Your task to perform on an android device: Search for the best movies of 2019  Image 0: 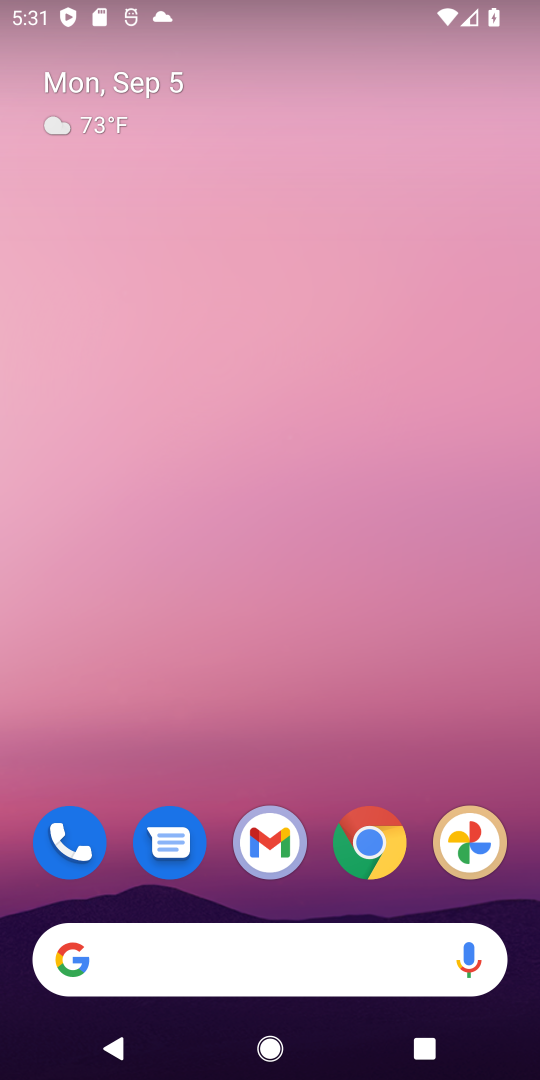
Step 0: click (372, 842)
Your task to perform on an android device: Search for the best movies of 2019  Image 1: 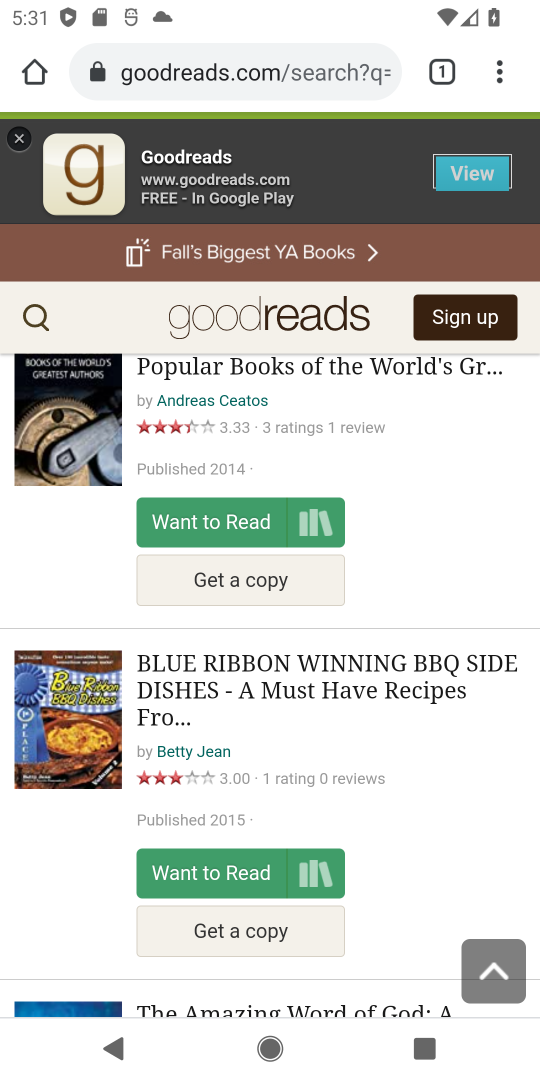
Step 1: click (347, 78)
Your task to perform on an android device: Search for the best movies of 2019  Image 2: 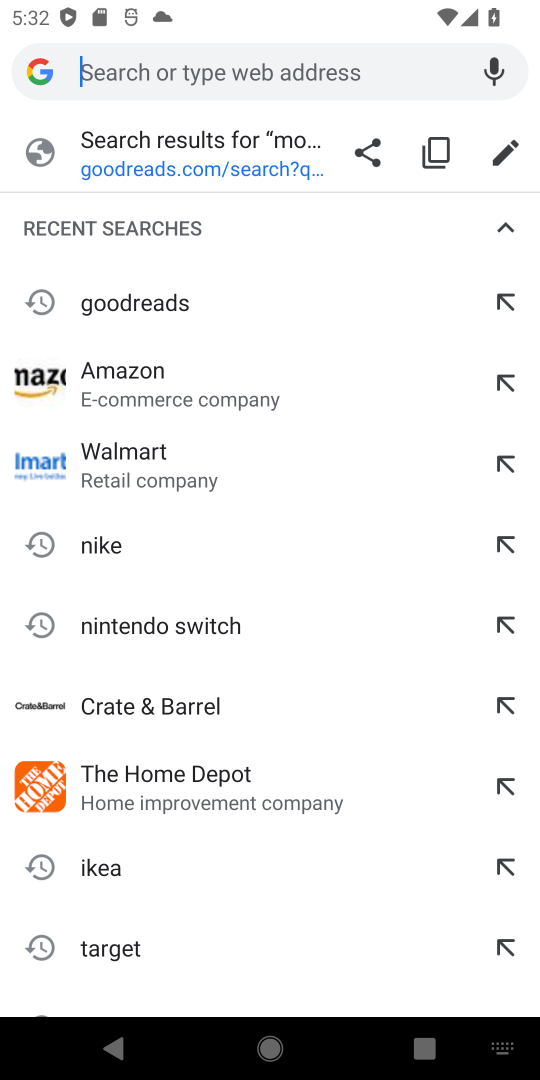
Step 2: click (246, 49)
Your task to perform on an android device: Search for the best movies of 2019  Image 3: 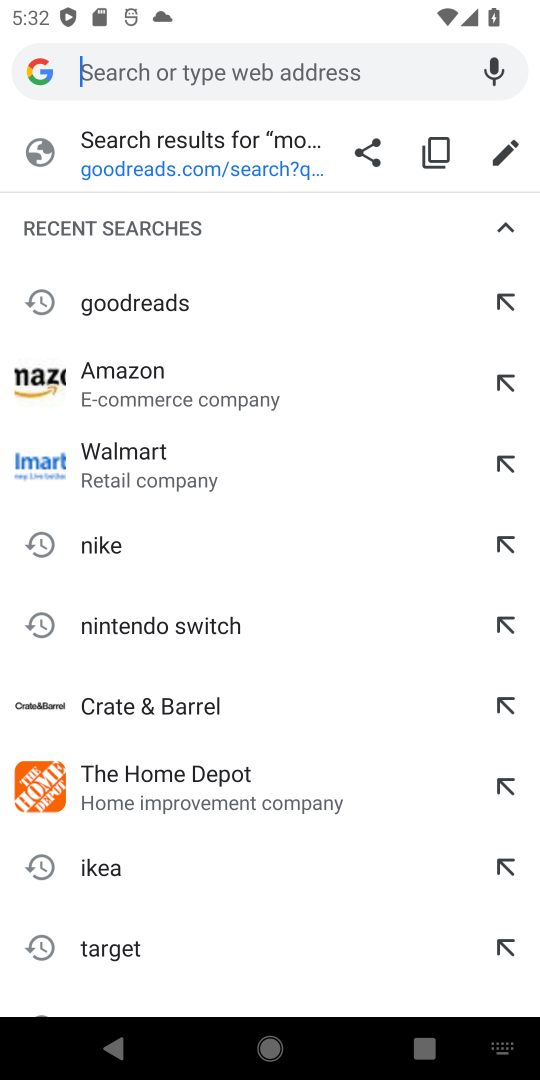
Step 3: type "best movies of 2019"
Your task to perform on an android device: Search for the best movies of 2019  Image 4: 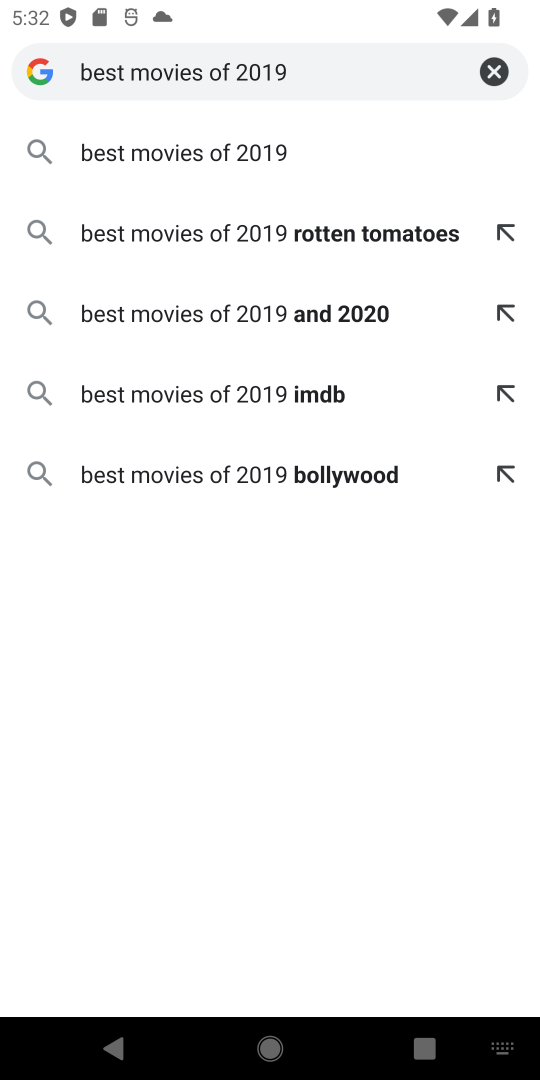
Step 4: click (168, 148)
Your task to perform on an android device: Search for the best movies of 2019  Image 5: 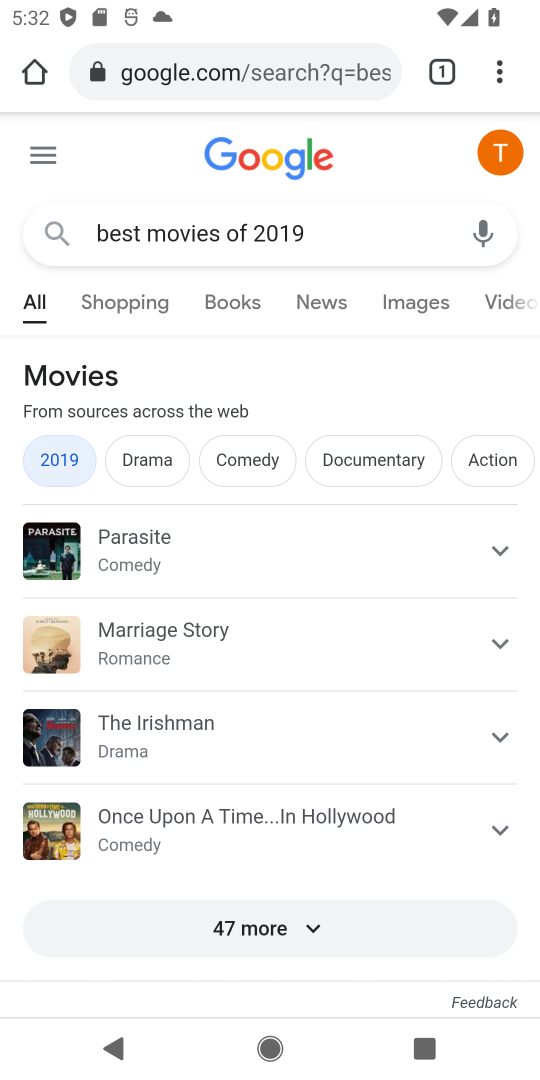
Step 5: task complete